Your task to perform on an android device: Go to battery settings Image 0: 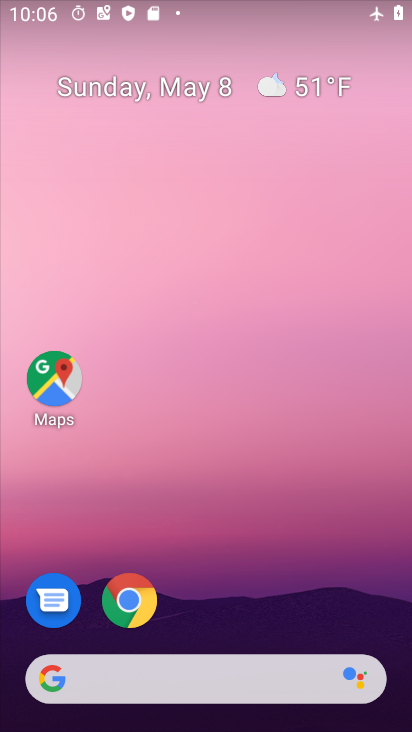
Step 0: drag from (275, 565) to (278, 20)
Your task to perform on an android device: Go to battery settings Image 1: 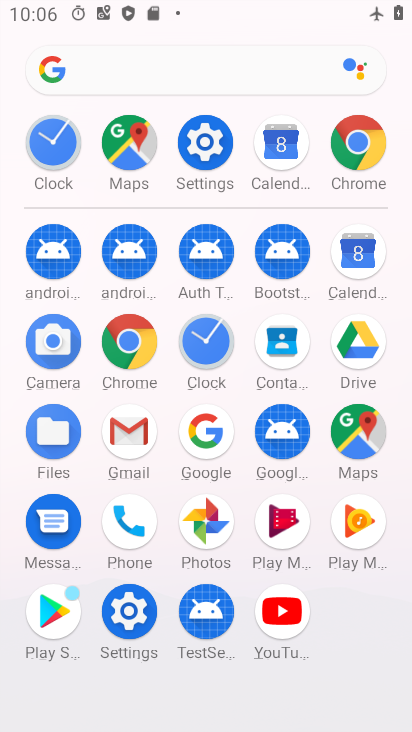
Step 1: drag from (0, 550) to (0, 255)
Your task to perform on an android device: Go to battery settings Image 2: 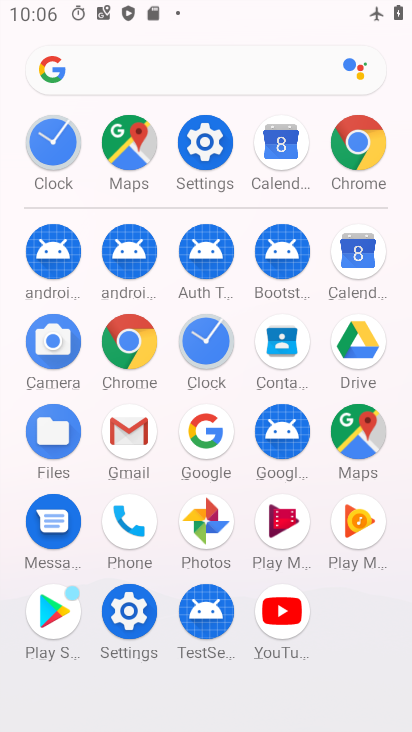
Step 2: click (129, 612)
Your task to perform on an android device: Go to battery settings Image 3: 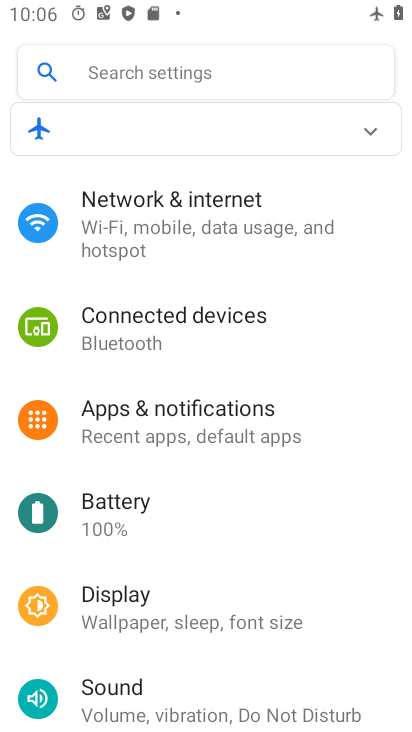
Step 3: click (160, 524)
Your task to perform on an android device: Go to battery settings Image 4: 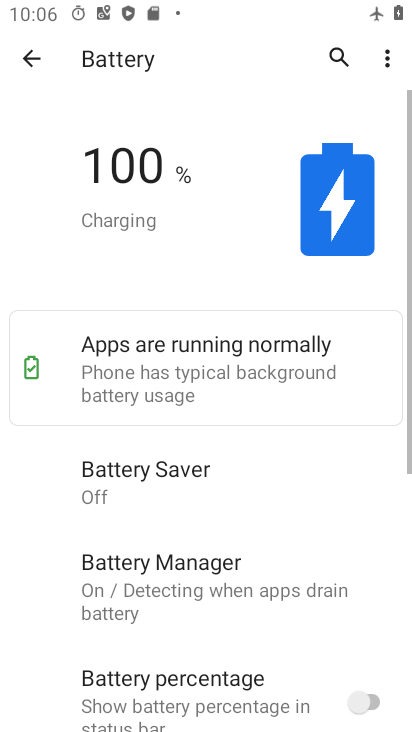
Step 4: task complete